Your task to perform on an android device: toggle airplane mode Image 0: 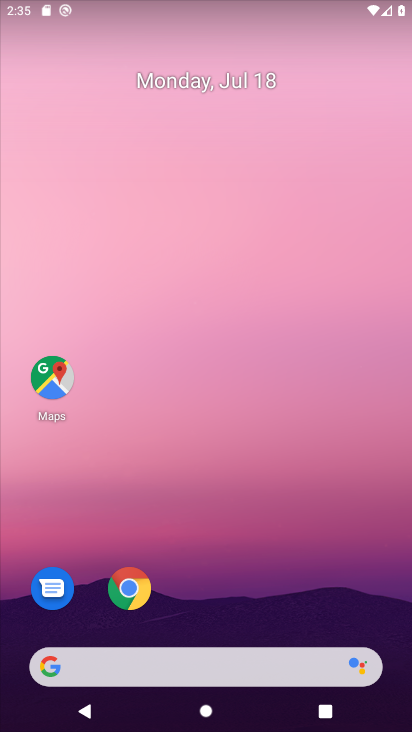
Step 0: drag from (206, 584) to (398, 0)
Your task to perform on an android device: toggle airplane mode Image 1: 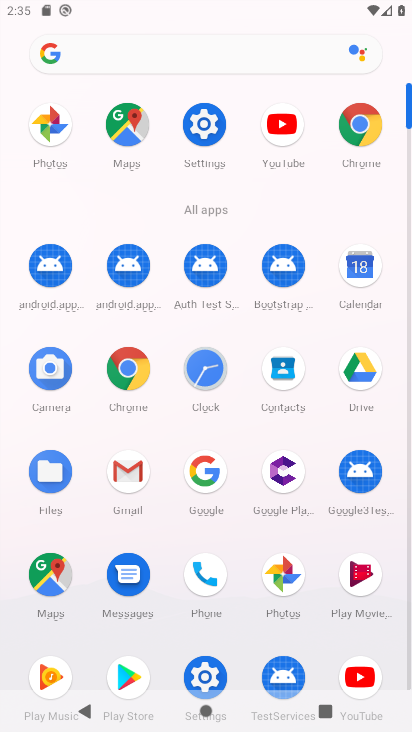
Step 1: click (204, 138)
Your task to perform on an android device: toggle airplane mode Image 2: 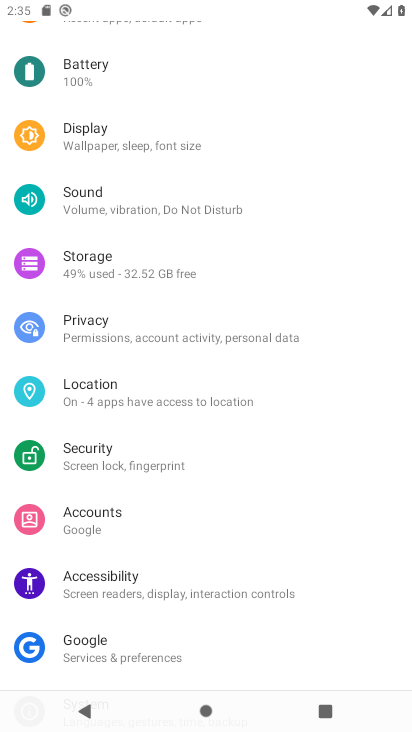
Step 2: drag from (206, 145) to (206, 386)
Your task to perform on an android device: toggle airplane mode Image 3: 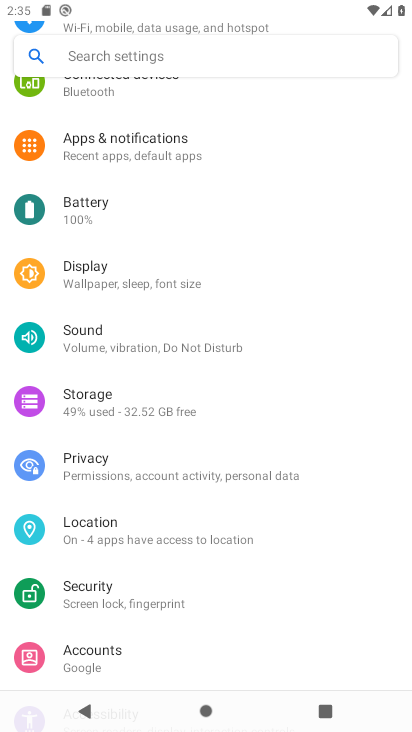
Step 3: drag from (191, 214) to (212, 532)
Your task to perform on an android device: toggle airplane mode Image 4: 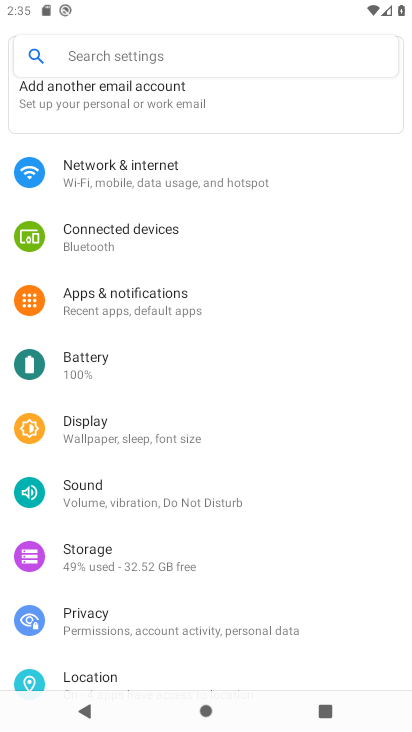
Step 4: click (201, 167)
Your task to perform on an android device: toggle airplane mode Image 5: 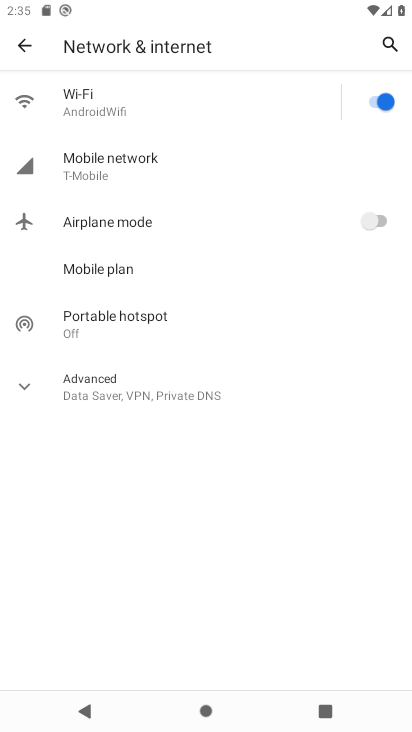
Step 5: click (365, 223)
Your task to perform on an android device: toggle airplane mode Image 6: 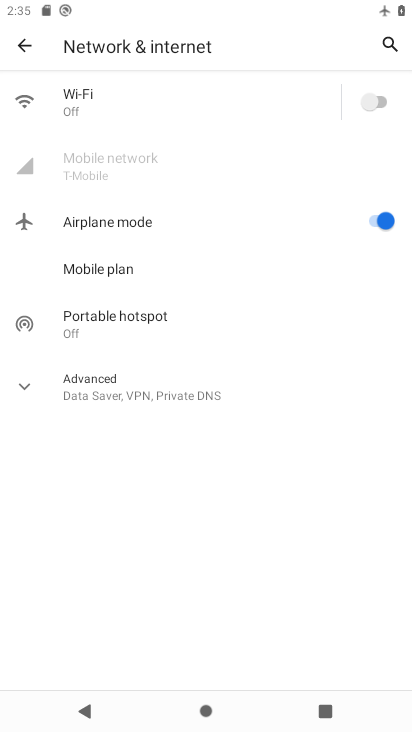
Step 6: task complete